Your task to perform on an android device: set the stopwatch Image 0: 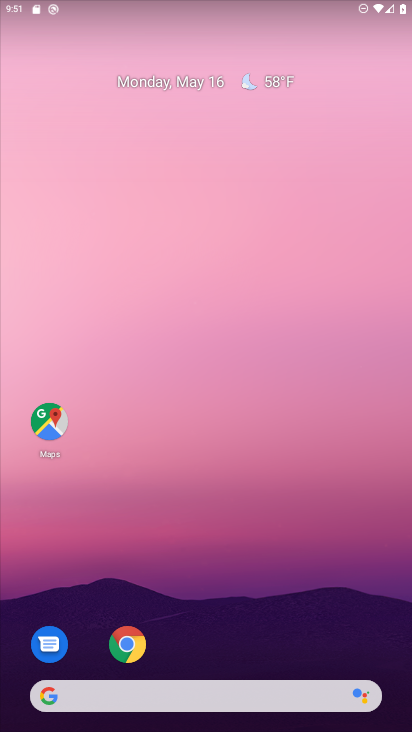
Step 0: drag from (213, 670) to (173, 150)
Your task to perform on an android device: set the stopwatch Image 1: 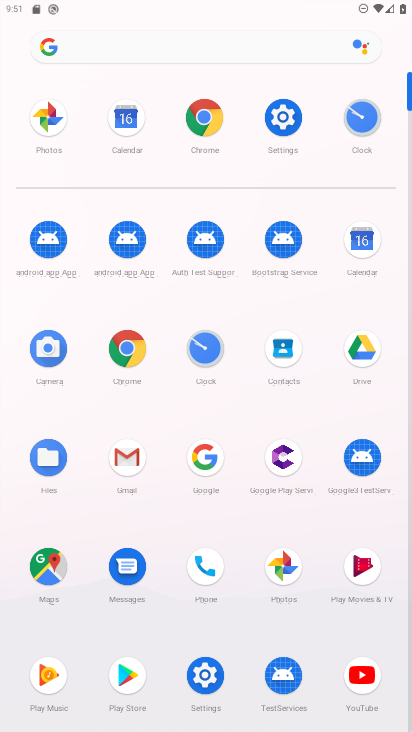
Step 1: click (216, 357)
Your task to perform on an android device: set the stopwatch Image 2: 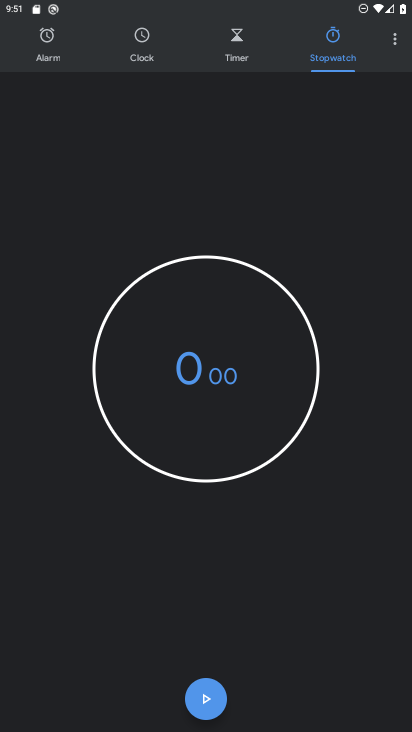
Step 2: click (206, 692)
Your task to perform on an android device: set the stopwatch Image 3: 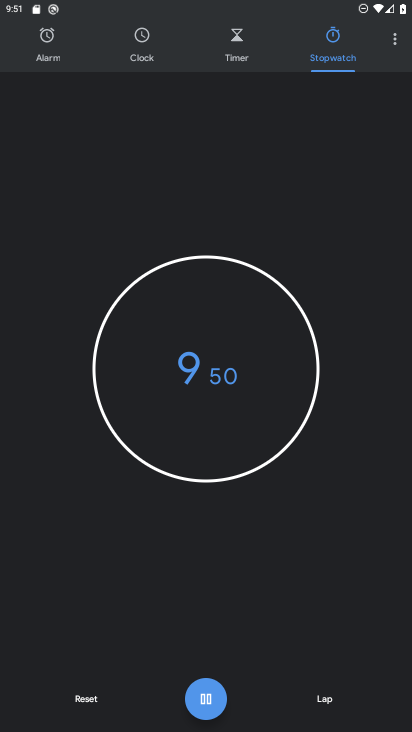
Step 3: click (210, 700)
Your task to perform on an android device: set the stopwatch Image 4: 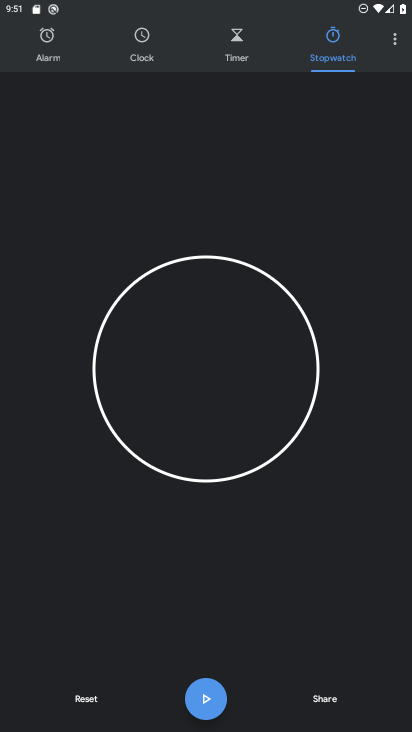
Step 4: task complete